Your task to perform on an android device: open app "Gmail" (install if not already installed) and enter user name: "undecidable@inbox.com" and password: "discouraging" Image 0: 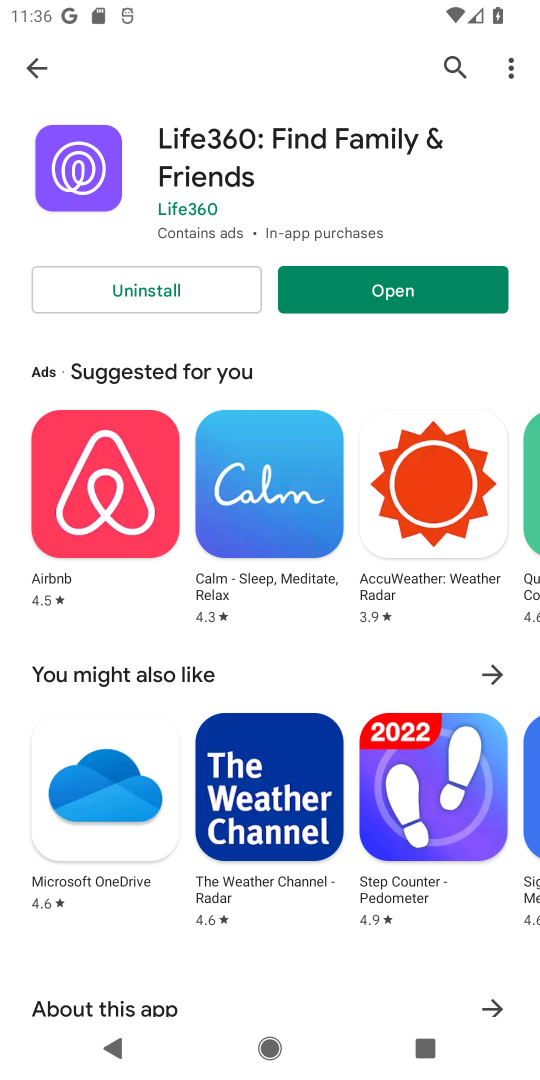
Step 0: click (444, 61)
Your task to perform on an android device: open app "Gmail" (install if not already installed) and enter user name: "undecidable@inbox.com" and password: "discouraging" Image 1: 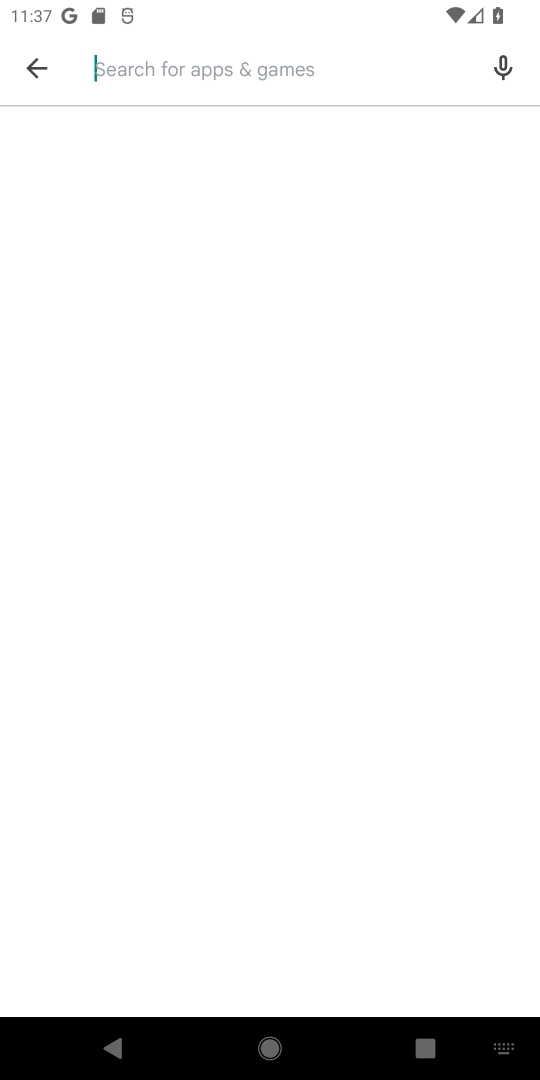
Step 1: click (331, 59)
Your task to perform on an android device: open app "Gmail" (install if not already installed) and enter user name: "undecidable@inbox.com" and password: "discouraging" Image 2: 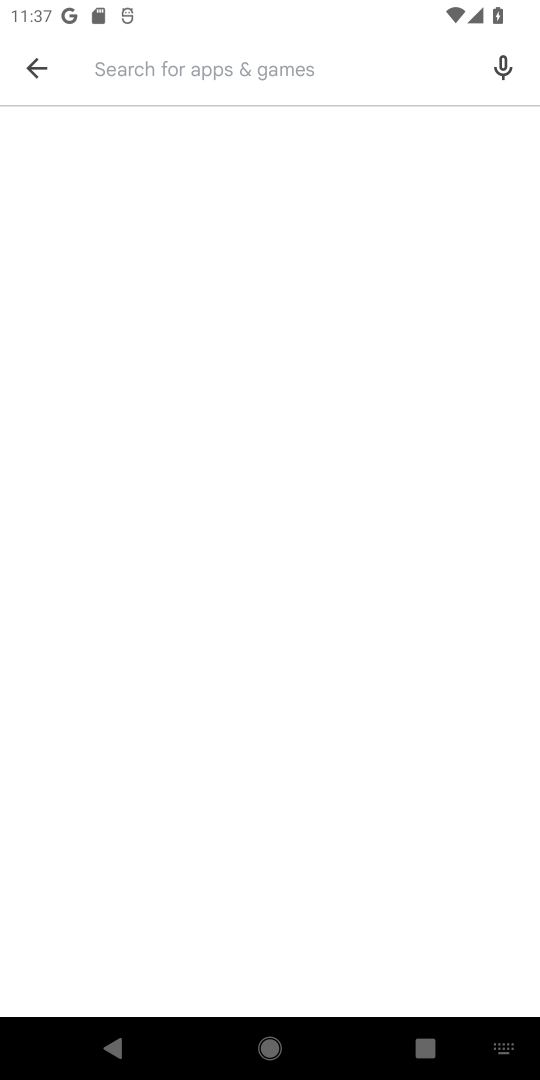
Step 2: type "Gmail"
Your task to perform on an android device: open app "Gmail" (install if not already installed) and enter user name: "undecidable@inbox.com" and password: "discouraging" Image 3: 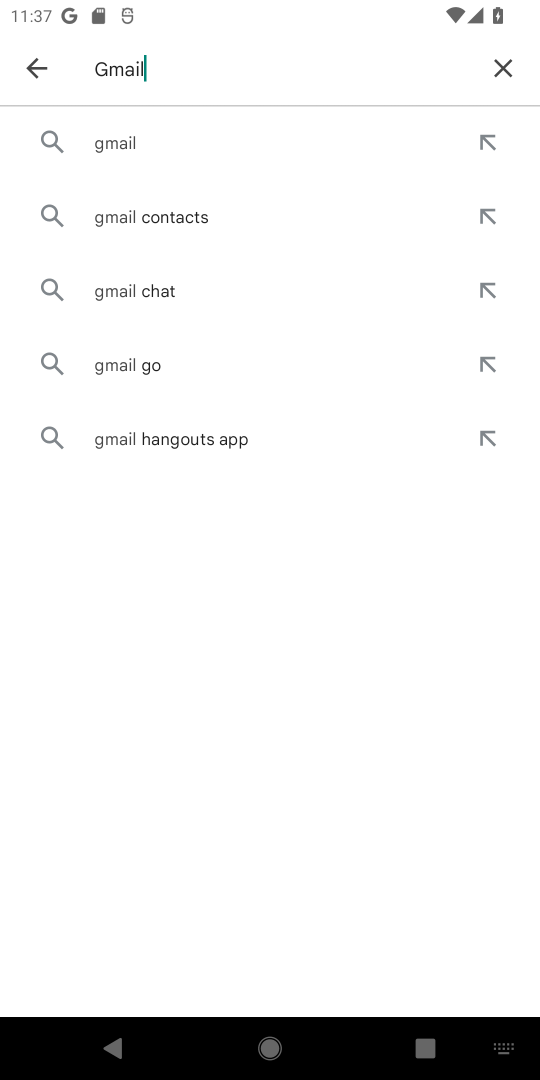
Step 3: click (126, 145)
Your task to perform on an android device: open app "Gmail" (install if not already installed) and enter user name: "undecidable@inbox.com" and password: "discouraging" Image 4: 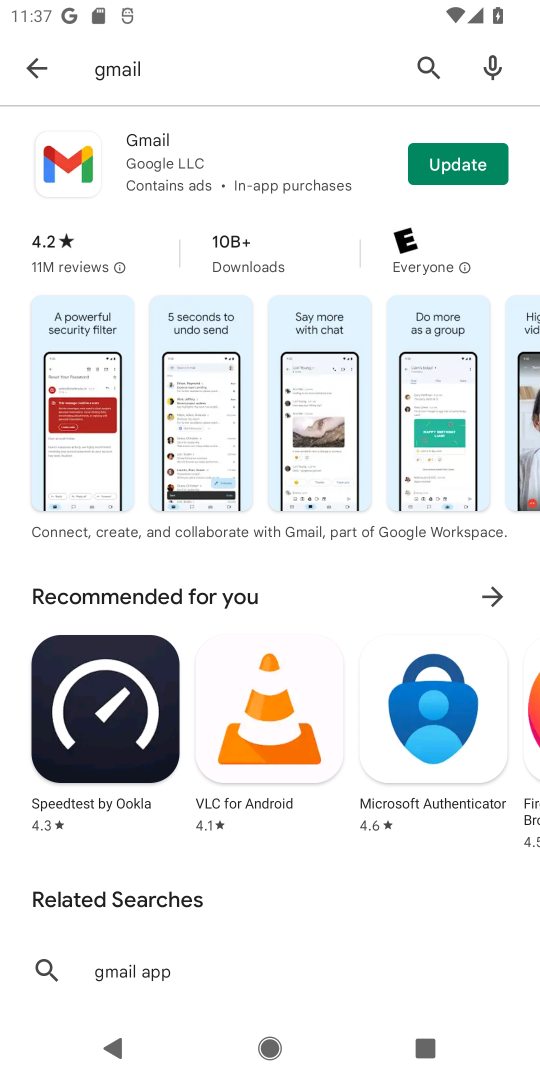
Step 4: click (269, 151)
Your task to perform on an android device: open app "Gmail" (install if not already installed) and enter user name: "undecidable@inbox.com" and password: "discouraging" Image 5: 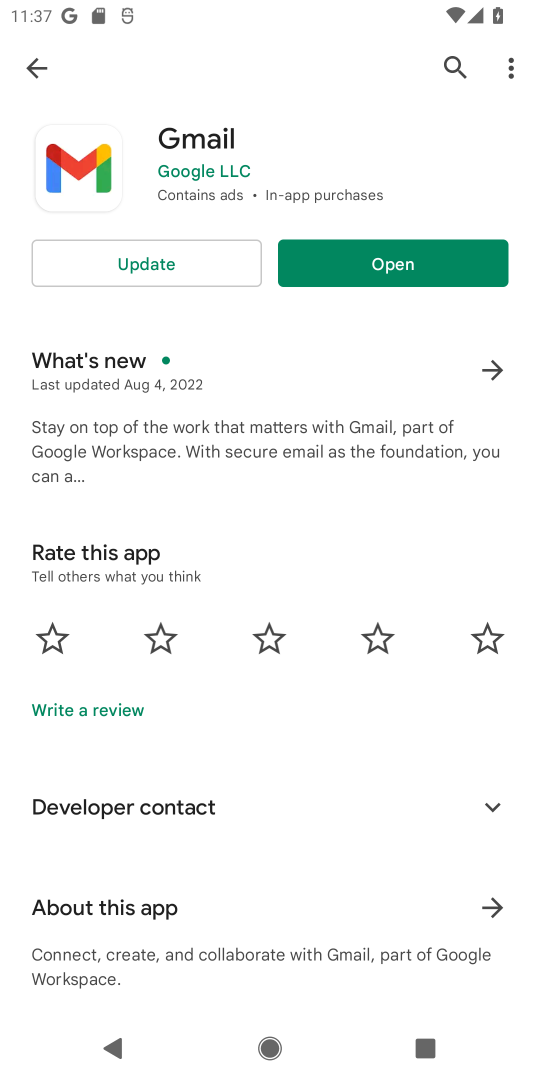
Step 5: click (254, 149)
Your task to perform on an android device: open app "Gmail" (install if not already installed) and enter user name: "undecidable@inbox.com" and password: "discouraging" Image 6: 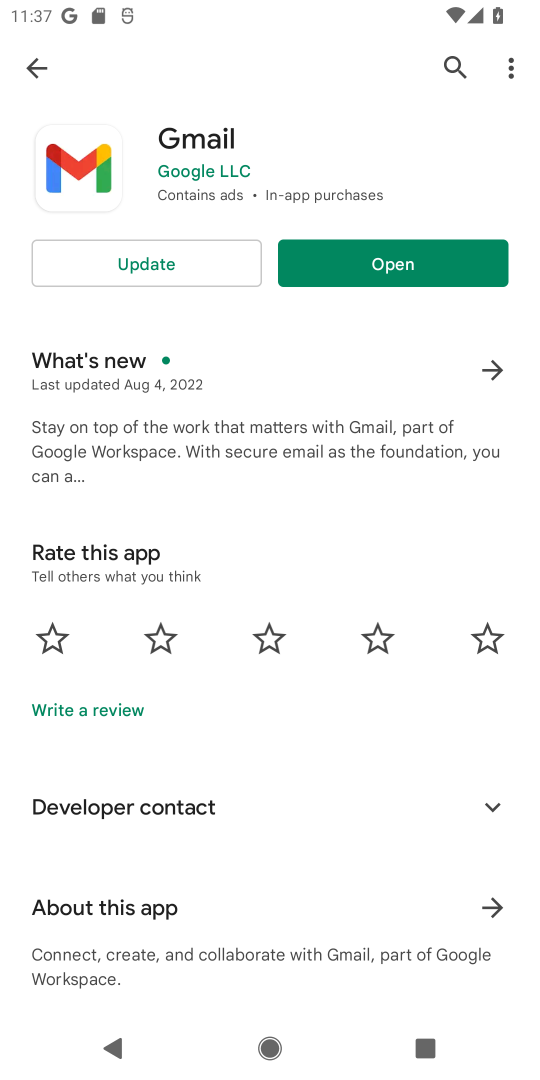
Step 6: click (371, 272)
Your task to perform on an android device: open app "Gmail" (install if not already installed) and enter user name: "undecidable@inbox.com" and password: "discouraging" Image 7: 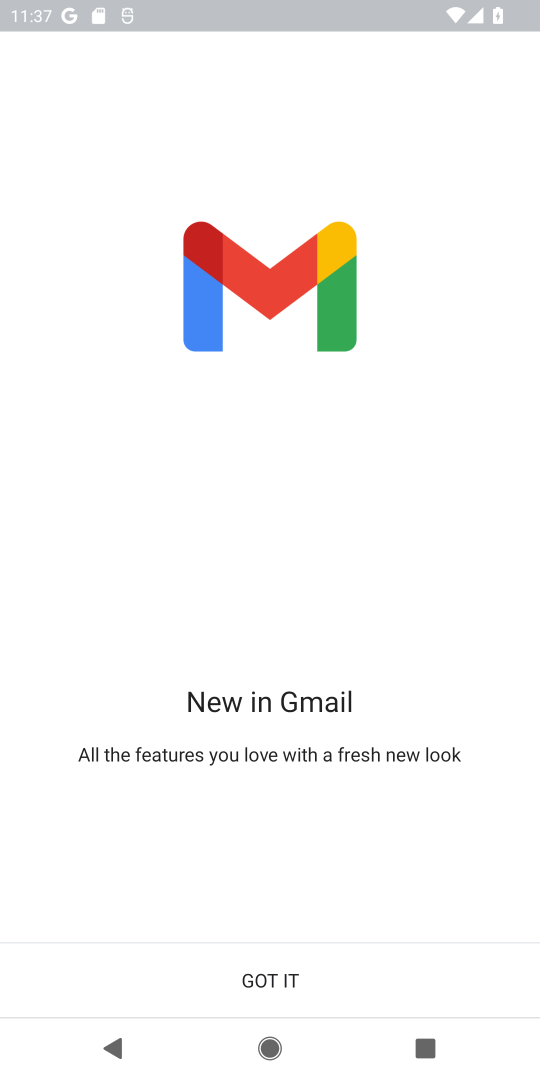
Step 7: task complete